Your task to perform on an android device: Open Maps and search for coffee Image 0: 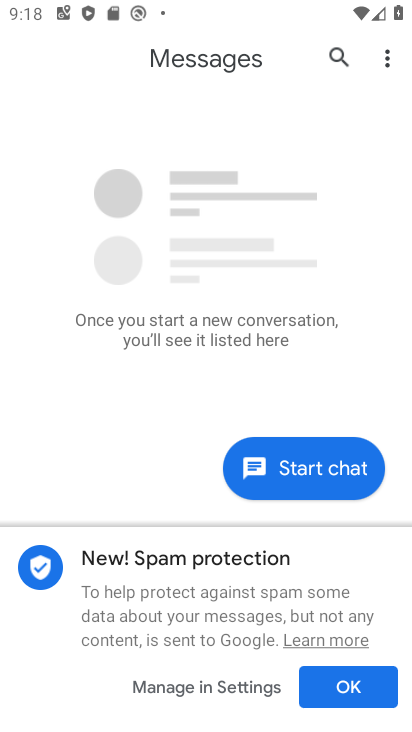
Step 0: press home button
Your task to perform on an android device: Open Maps and search for coffee Image 1: 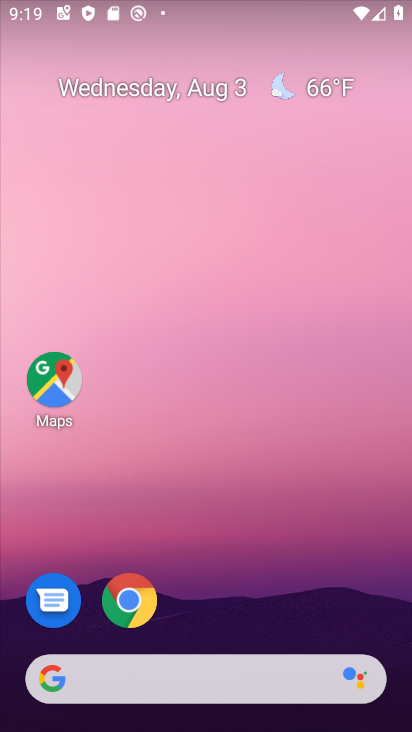
Step 1: click (61, 382)
Your task to perform on an android device: Open Maps and search for coffee Image 2: 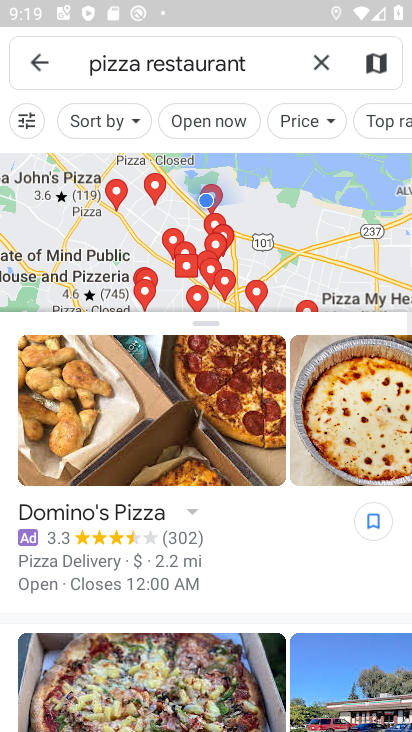
Step 2: click (163, 63)
Your task to perform on an android device: Open Maps and search for coffee Image 3: 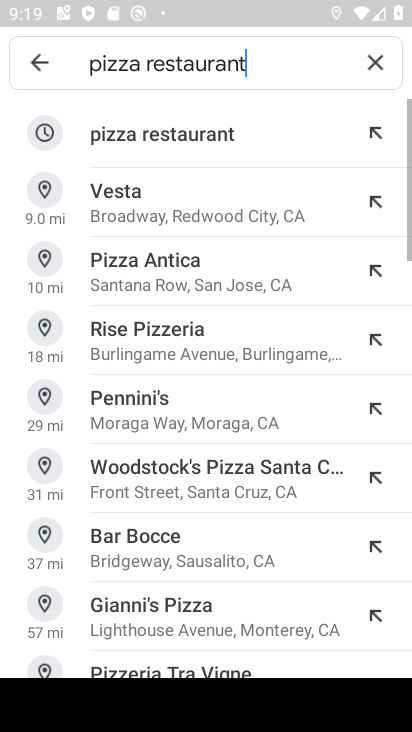
Step 3: click (363, 59)
Your task to perform on an android device: Open Maps and search for coffee Image 4: 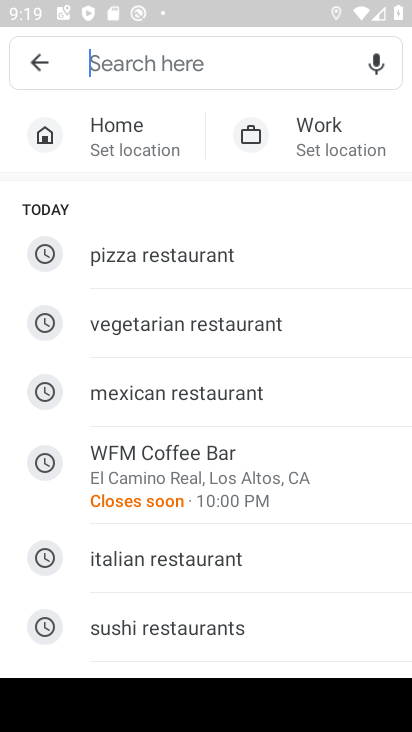
Step 4: type "coffee"
Your task to perform on an android device: Open Maps and search for coffee Image 5: 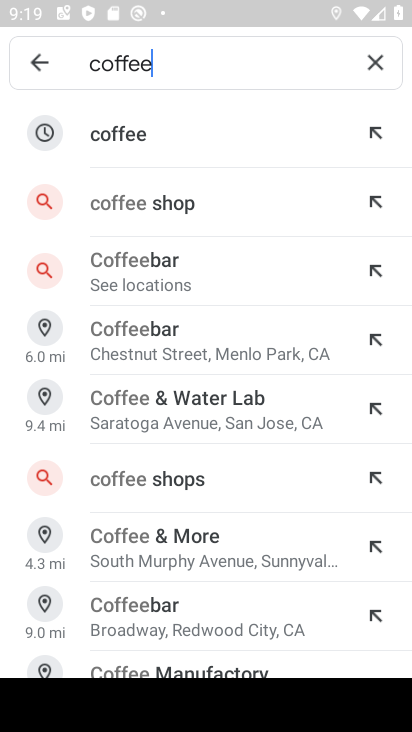
Step 5: click (188, 150)
Your task to perform on an android device: Open Maps and search for coffee Image 6: 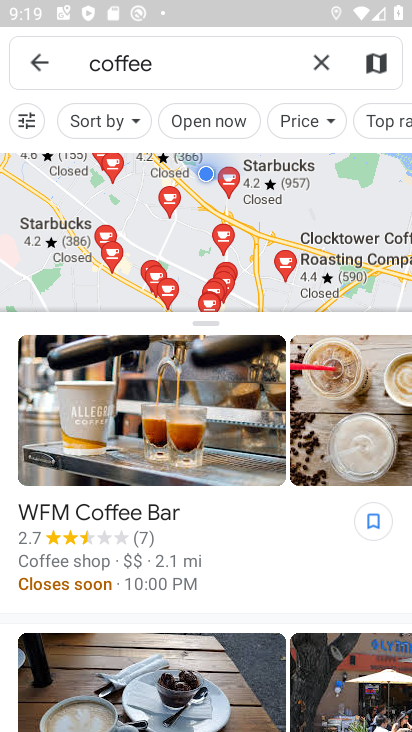
Step 6: task complete